Your task to perform on an android device: Play the last video I watched on Youtube Image 0: 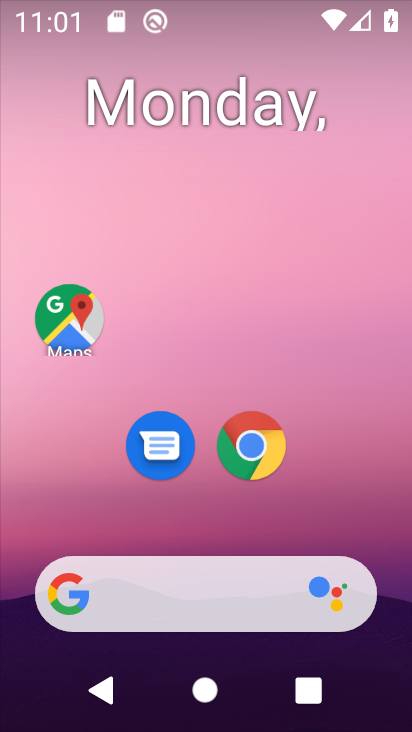
Step 0: drag from (225, 551) to (294, 235)
Your task to perform on an android device: Play the last video I watched on Youtube Image 1: 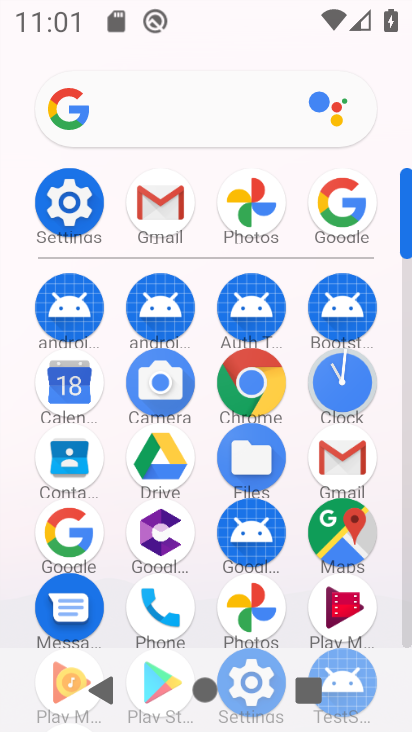
Step 1: drag from (226, 642) to (290, 277)
Your task to perform on an android device: Play the last video I watched on Youtube Image 2: 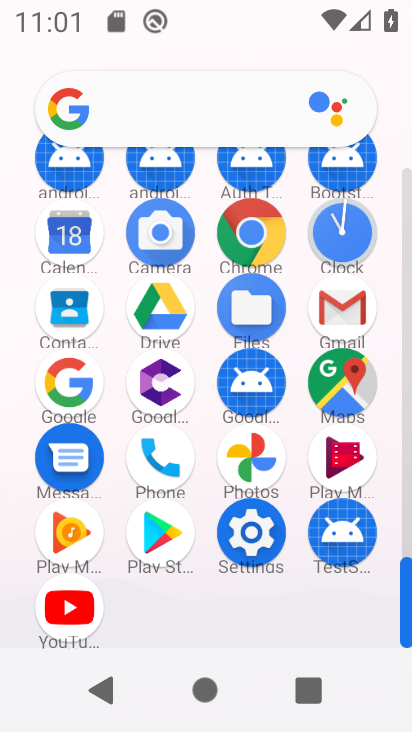
Step 2: click (62, 598)
Your task to perform on an android device: Play the last video I watched on Youtube Image 3: 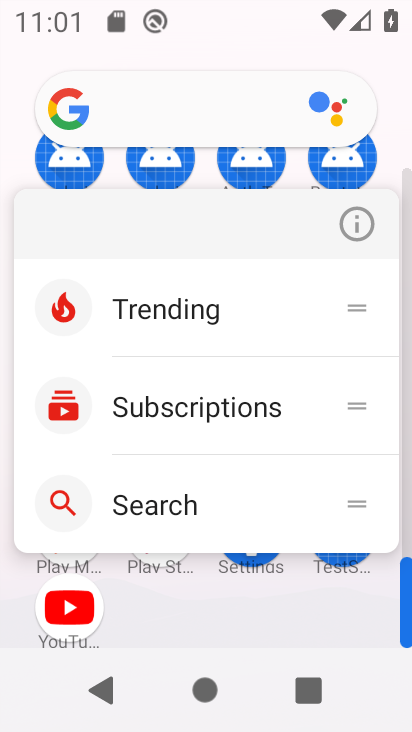
Step 3: click (75, 620)
Your task to perform on an android device: Play the last video I watched on Youtube Image 4: 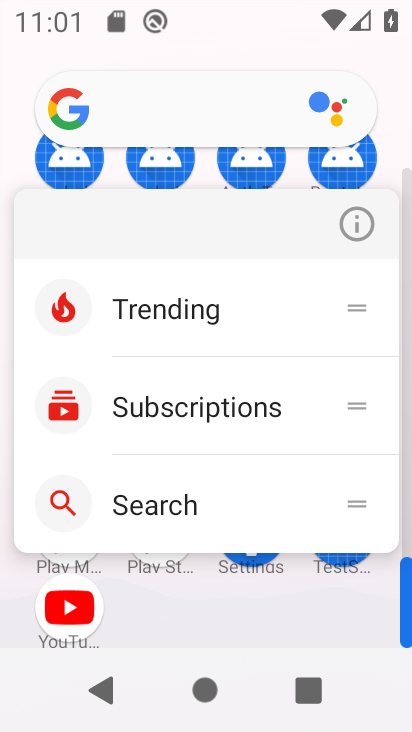
Step 4: click (74, 602)
Your task to perform on an android device: Play the last video I watched on Youtube Image 5: 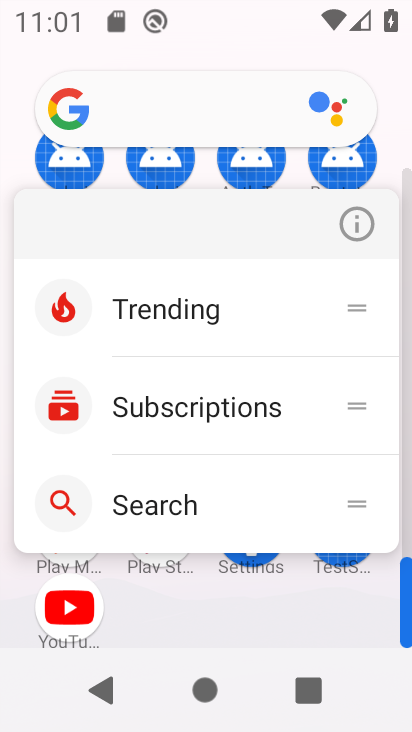
Step 5: click (69, 602)
Your task to perform on an android device: Play the last video I watched on Youtube Image 6: 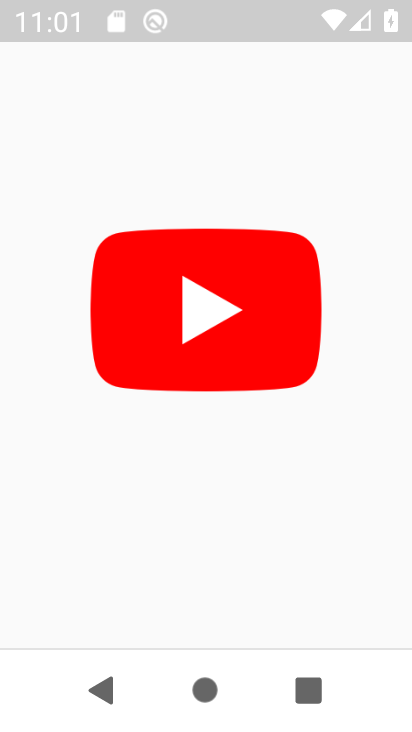
Step 6: click (11, 610)
Your task to perform on an android device: Play the last video I watched on Youtube Image 7: 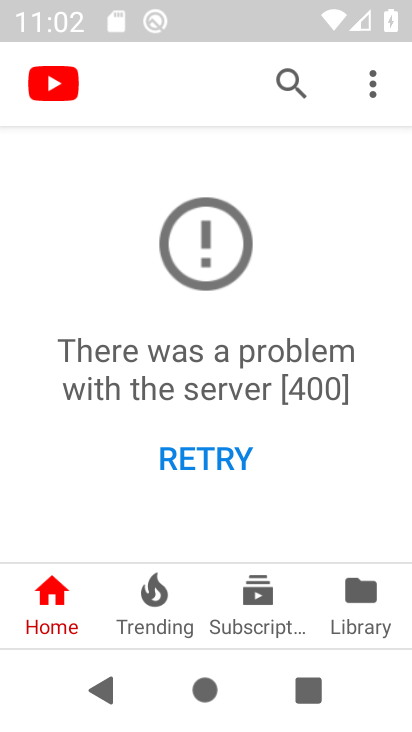
Step 7: click (355, 600)
Your task to perform on an android device: Play the last video I watched on Youtube Image 8: 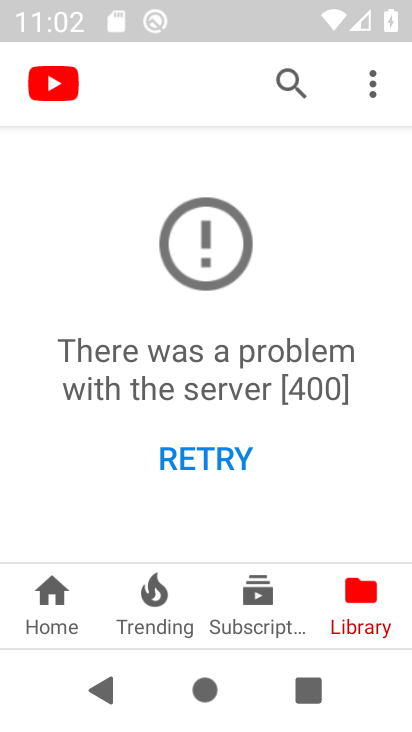
Step 8: task complete